Your task to perform on an android device: Turn off the flashlight Image 0: 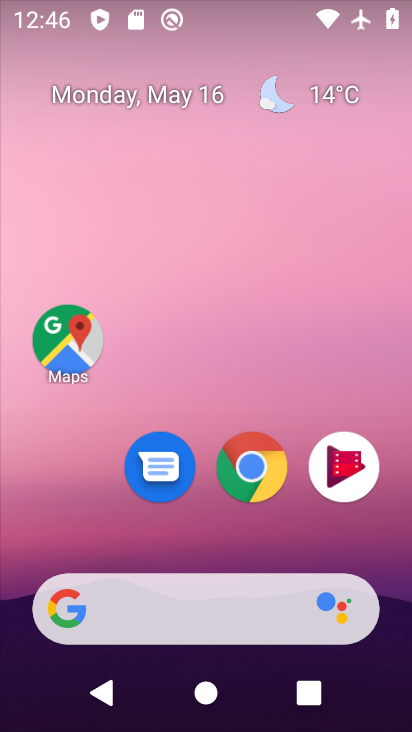
Step 0: drag from (242, 524) to (378, 172)
Your task to perform on an android device: Turn off the flashlight Image 1: 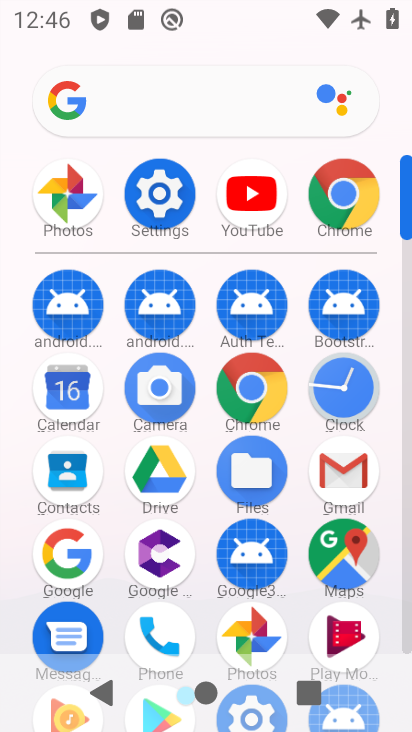
Step 1: click (162, 171)
Your task to perform on an android device: Turn off the flashlight Image 2: 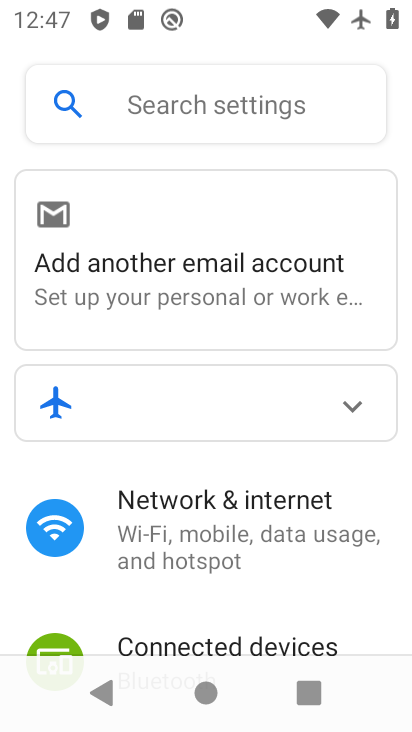
Step 2: task complete